Your task to perform on an android device: turn off sleep mode Image 0: 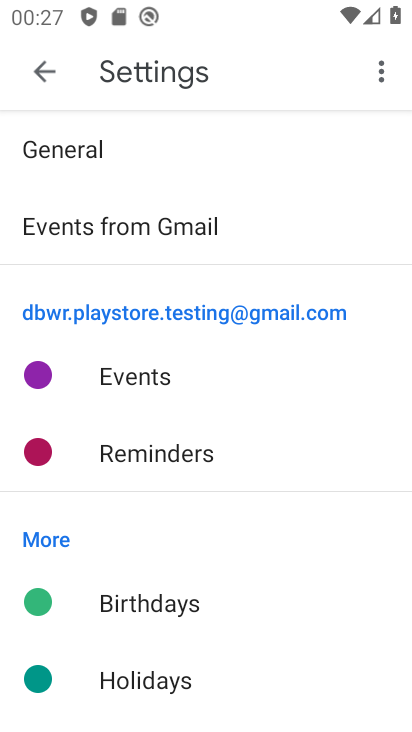
Step 0: press home button
Your task to perform on an android device: turn off sleep mode Image 1: 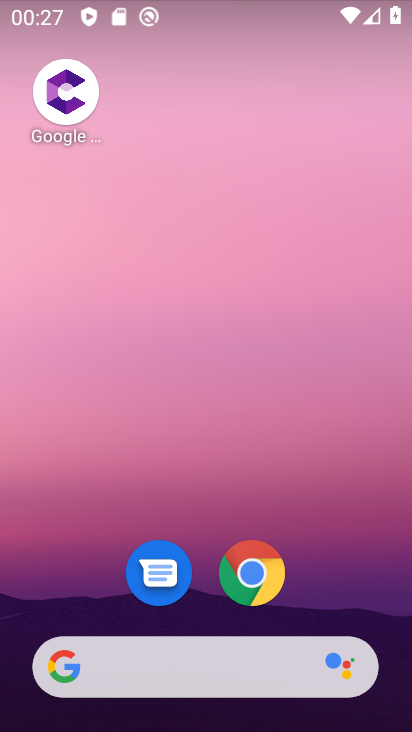
Step 1: drag from (221, 568) to (273, 46)
Your task to perform on an android device: turn off sleep mode Image 2: 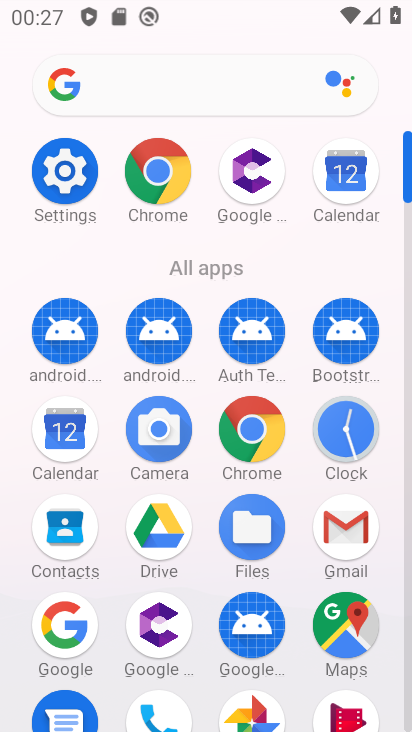
Step 2: click (77, 175)
Your task to perform on an android device: turn off sleep mode Image 3: 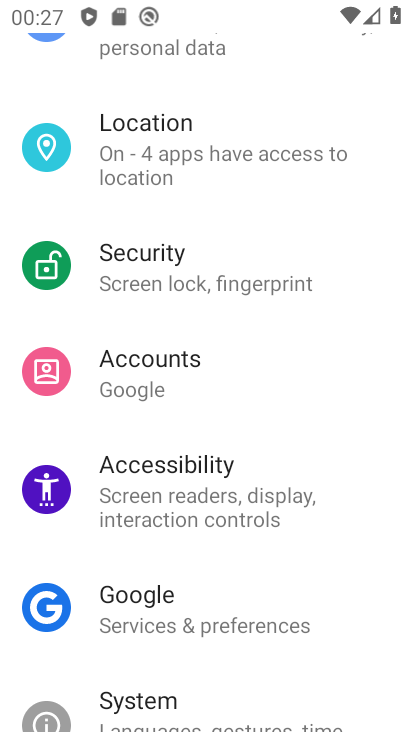
Step 3: drag from (204, 135) to (213, 634)
Your task to perform on an android device: turn off sleep mode Image 4: 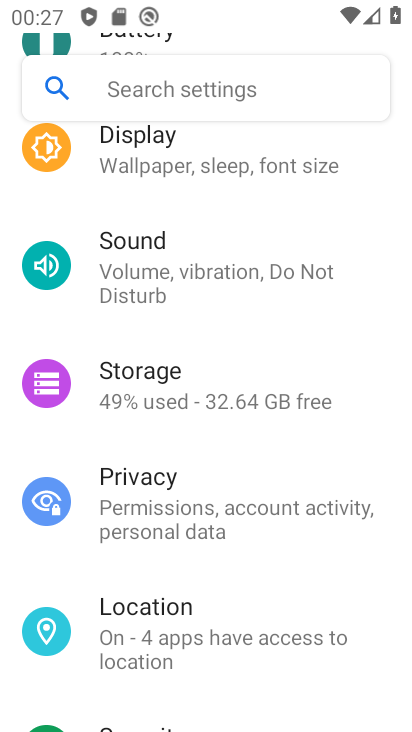
Step 4: click (262, 91)
Your task to perform on an android device: turn off sleep mode Image 5: 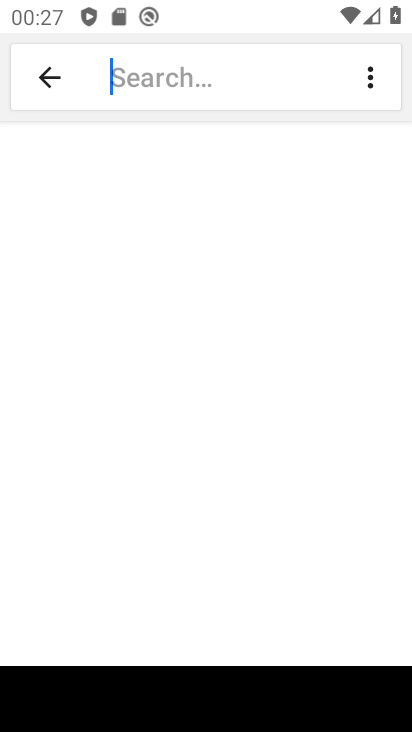
Step 5: type ""
Your task to perform on an android device: turn off sleep mode Image 6: 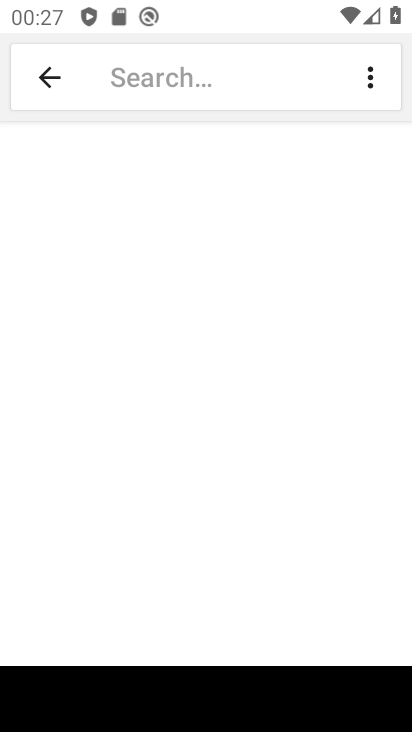
Step 6: type "sleep mode"
Your task to perform on an android device: turn off sleep mode Image 7: 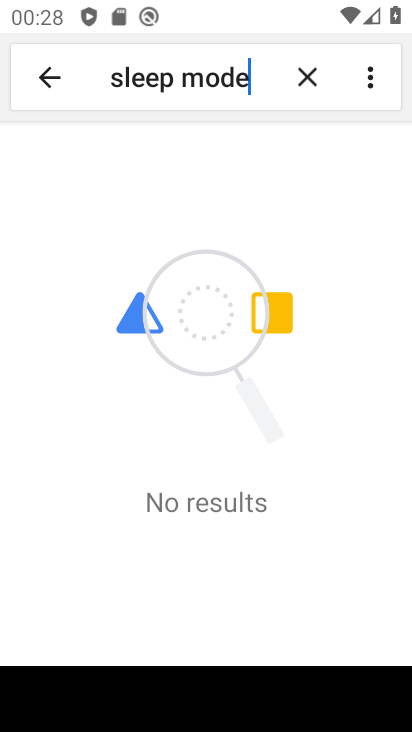
Step 7: task complete